Your task to perform on an android device: Open Chrome and go to the settings page Image 0: 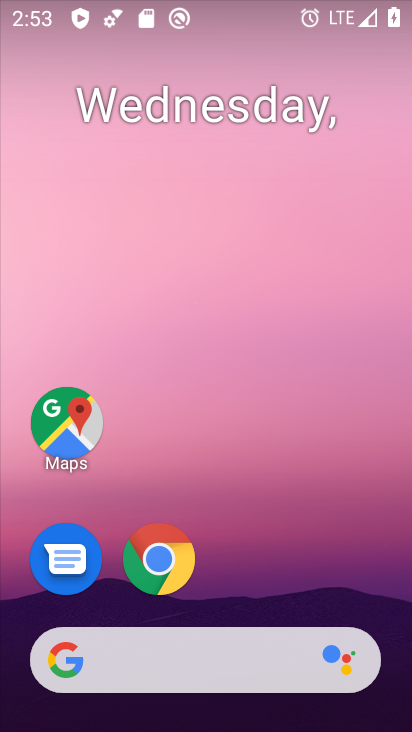
Step 0: click (148, 559)
Your task to perform on an android device: Open Chrome and go to the settings page Image 1: 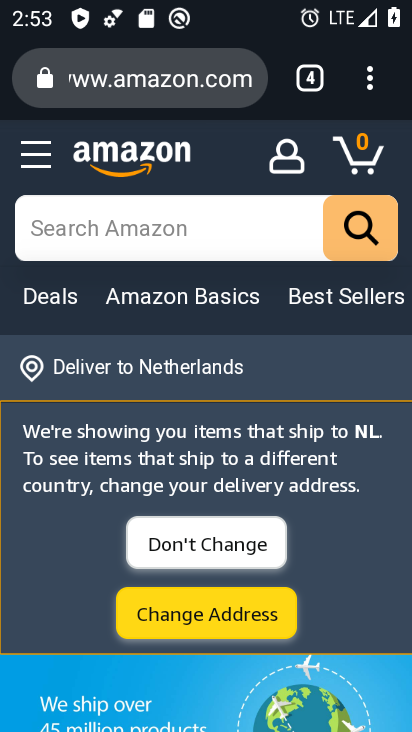
Step 1: task complete